Your task to perform on an android device: open a new tab in the chrome app Image 0: 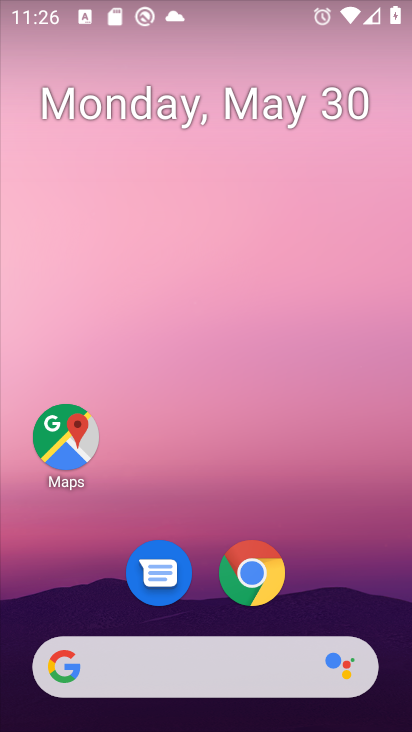
Step 0: click (268, 579)
Your task to perform on an android device: open a new tab in the chrome app Image 1: 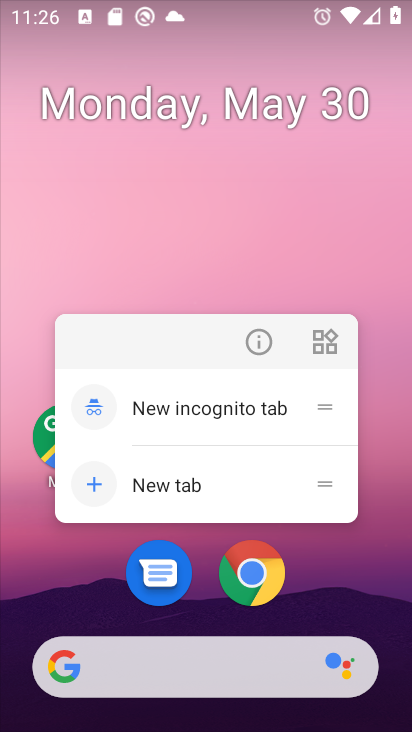
Step 1: click (268, 580)
Your task to perform on an android device: open a new tab in the chrome app Image 2: 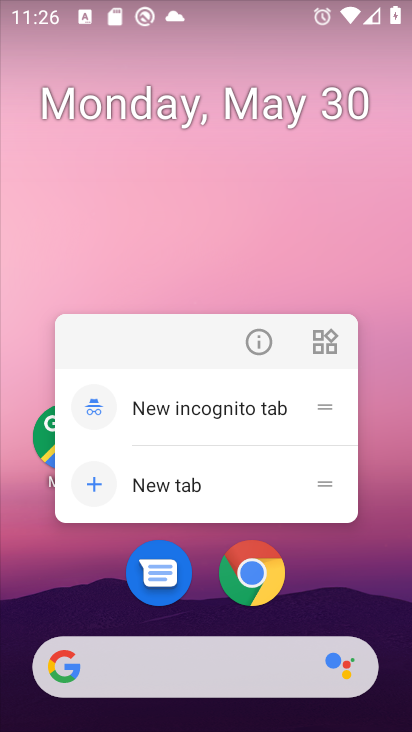
Step 2: click (270, 583)
Your task to perform on an android device: open a new tab in the chrome app Image 3: 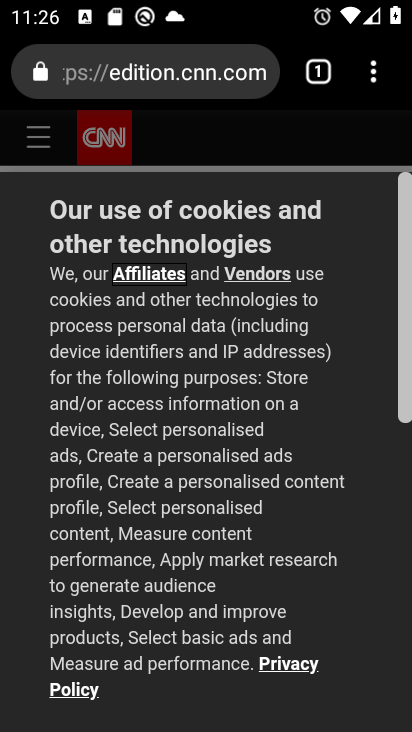
Step 3: drag from (325, 77) to (346, 265)
Your task to perform on an android device: open a new tab in the chrome app Image 4: 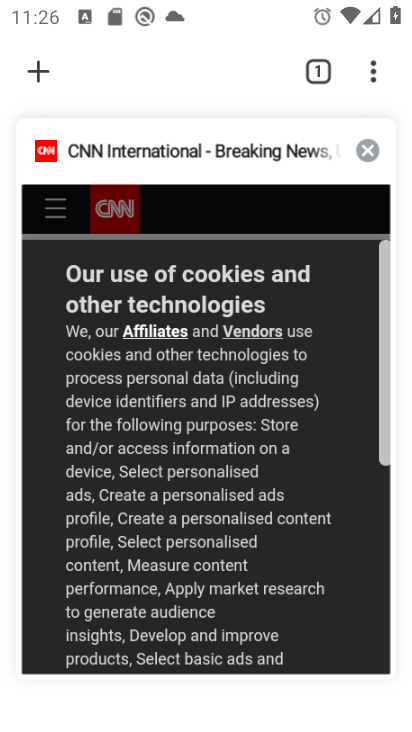
Step 4: click (40, 81)
Your task to perform on an android device: open a new tab in the chrome app Image 5: 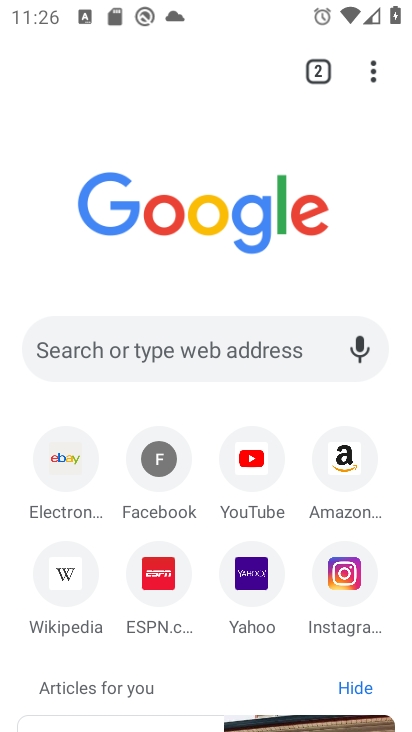
Step 5: task complete